Your task to perform on an android device: turn off sleep mode Image 0: 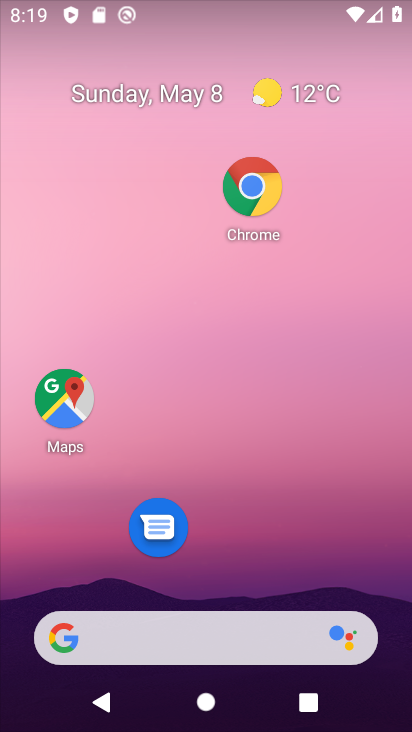
Step 0: drag from (282, 590) to (262, 206)
Your task to perform on an android device: turn off sleep mode Image 1: 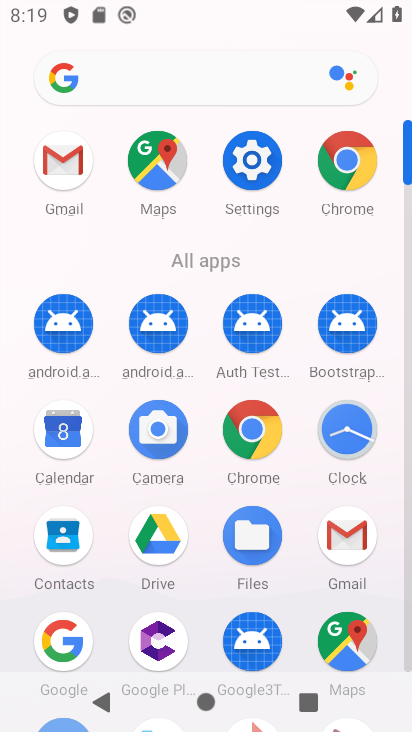
Step 1: click (253, 157)
Your task to perform on an android device: turn off sleep mode Image 2: 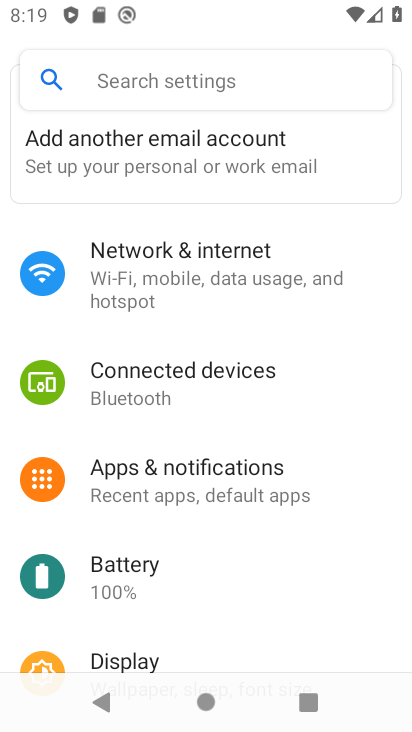
Step 2: task complete